Your task to perform on an android device: Go to CNN.com Image 0: 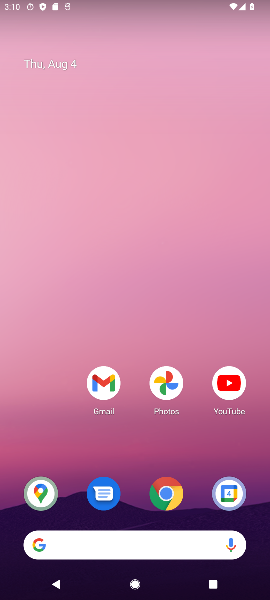
Step 0: click (97, 541)
Your task to perform on an android device: Go to CNN.com Image 1: 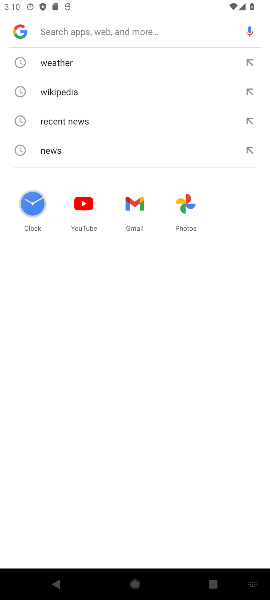
Step 1: type "CNN.com"
Your task to perform on an android device: Go to CNN.com Image 2: 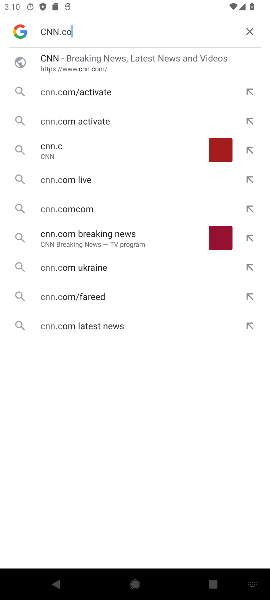
Step 2: type ""
Your task to perform on an android device: Go to CNN.com Image 3: 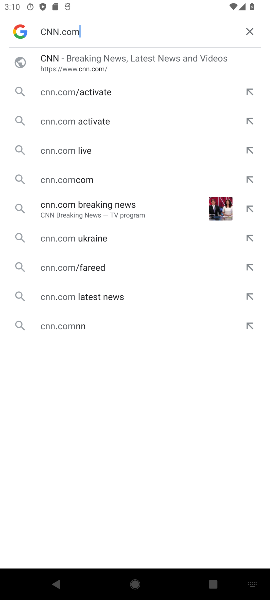
Step 3: click (51, 59)
Your task to perform on an android device: Go to CNN.com Image 4: 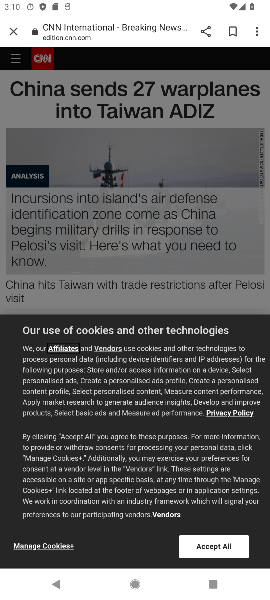
Step 4: task complete